Your task to perform on an android device: manage bookmarks in the chrome app Image 0: 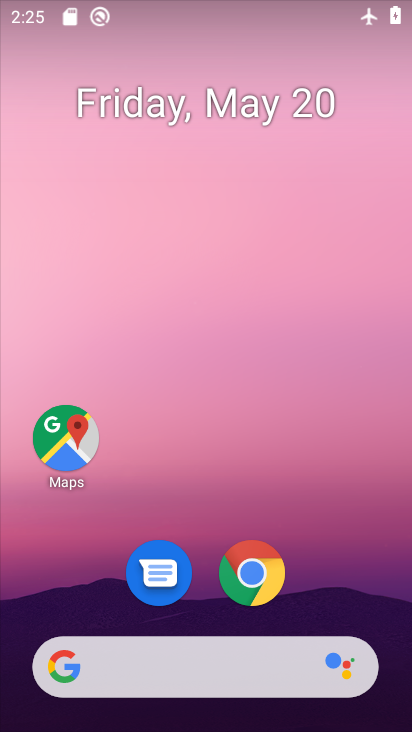
Step 0: click (257, 580)
Your task to perform on an android device: manage bookmarks in the chrome app Image 1: 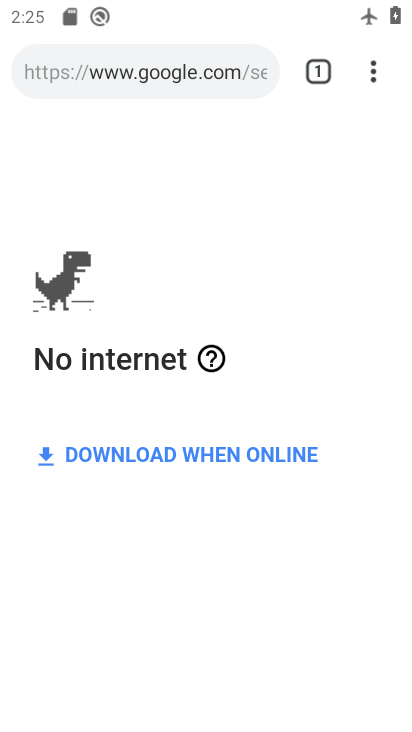
Step 1: click (367, 66)
Your task to perform on an android device: manage bookmarks in the chrome app Image 2: 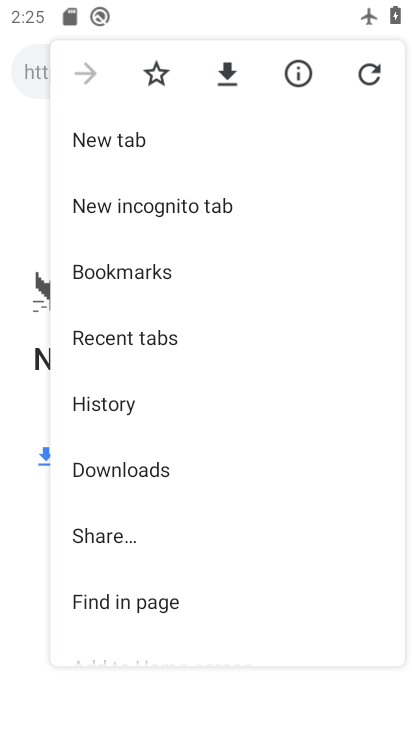
Step 2: click (114, 280)
Your task to perform on an android device: manage bookmarks in the chrome app Image 3: 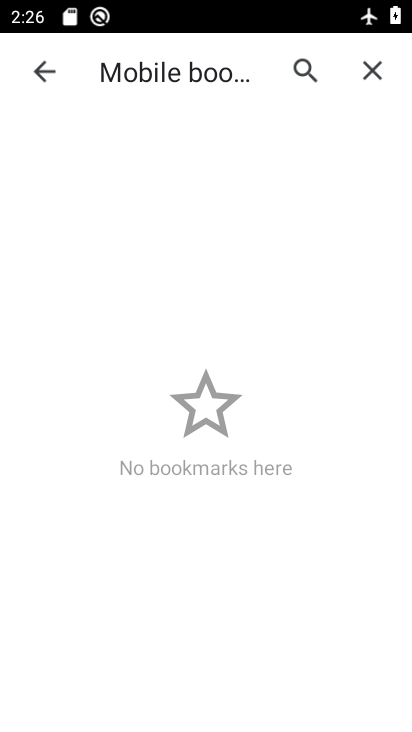
Step 3: task complete